Your task to perform on an android device: snooze an email in the gmail app Image 0: 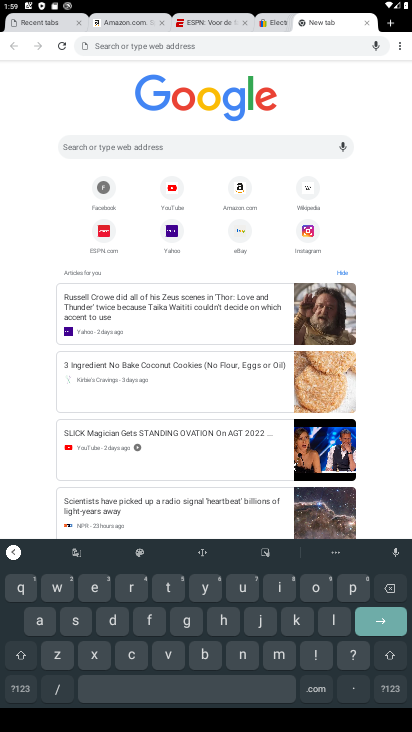
Step 0: press home button
Your task to perform on an android device: snooze an email in the gmail app Image 1: 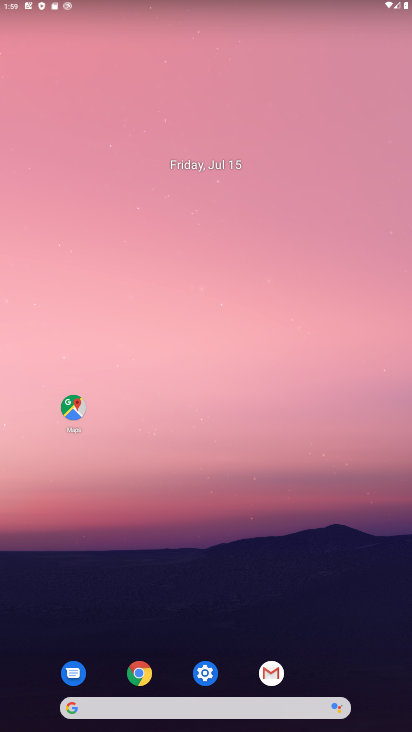
Step 1: click (270, 667)
Your task to perform on an android device: snooze an email in the gmail app Image 2: 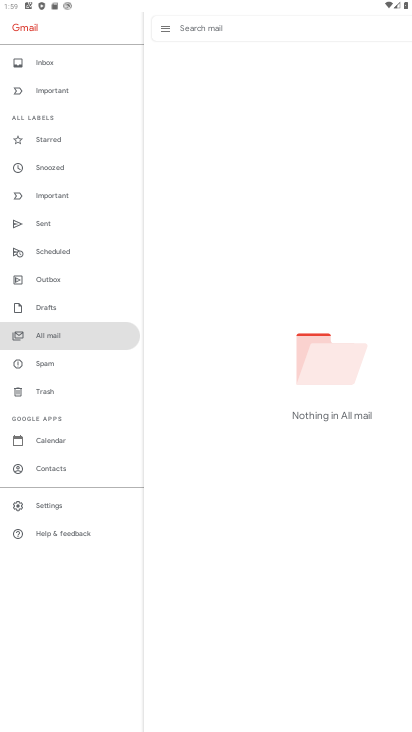
Step 2: click (57, 165)
Your task to perform on an android device: snooze an email in the gmail app Image 3: 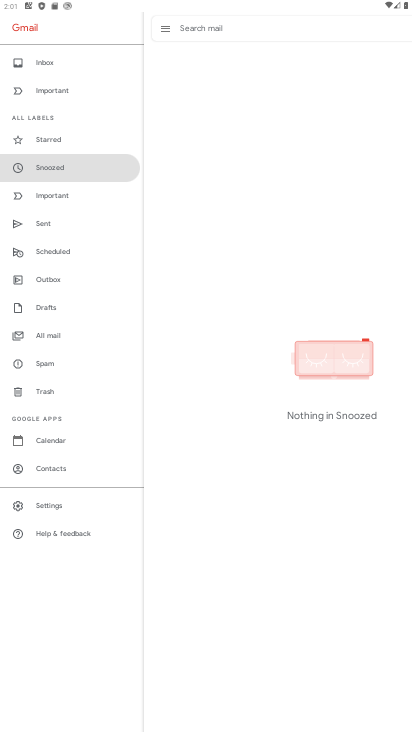
Step 3: task complete